Your task to perform on an android device: toggle show notifications on the lock screen Image 0: 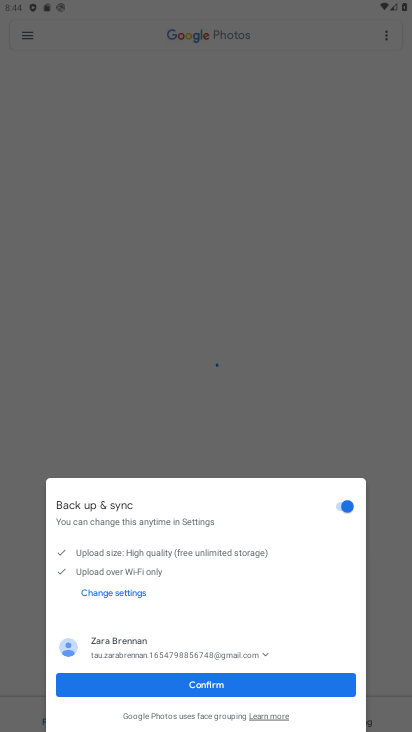
Step 0: press home button
Your task to perform on an android device: toggle show notifications on the lock screen Image 1: 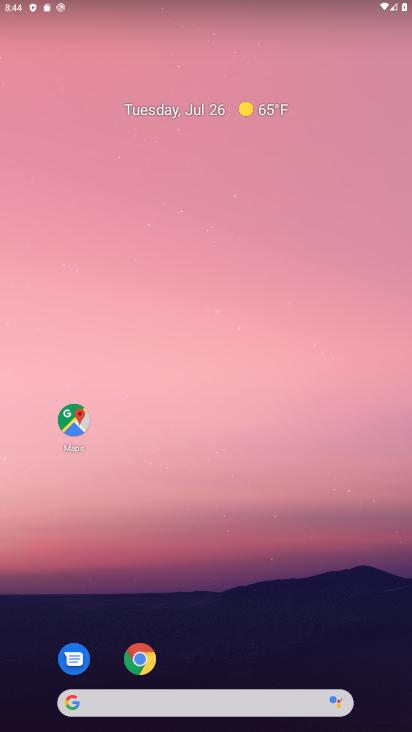
Step 1: drag from (224, 607) to (226, 160)
Your task to perform on an android device: toggle show notifications on the lock screen Image 2: 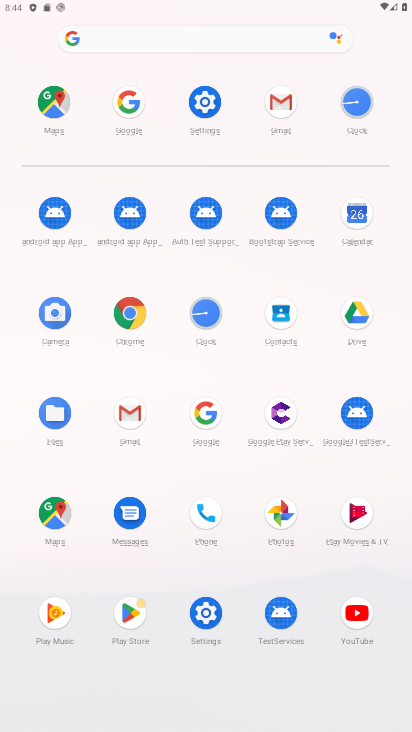
Step 2: click (200, 122)
Your task to perform on an android device: toggle show notifications on the lock screen Image 3: 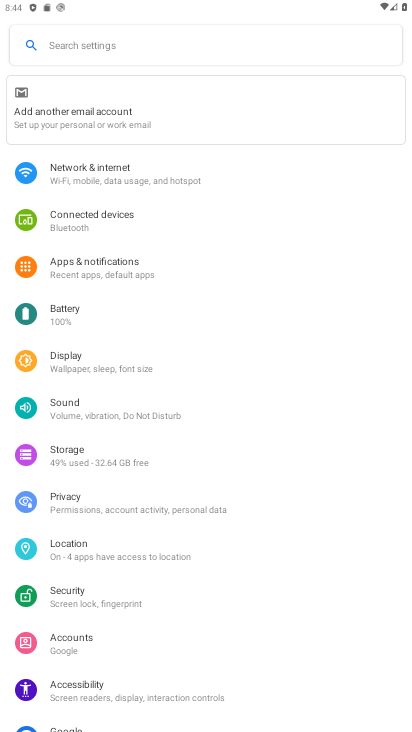
Step 3: click (85, 273)
Your task to perform on an android device: toggle show notifications on the lock screen Image 4: 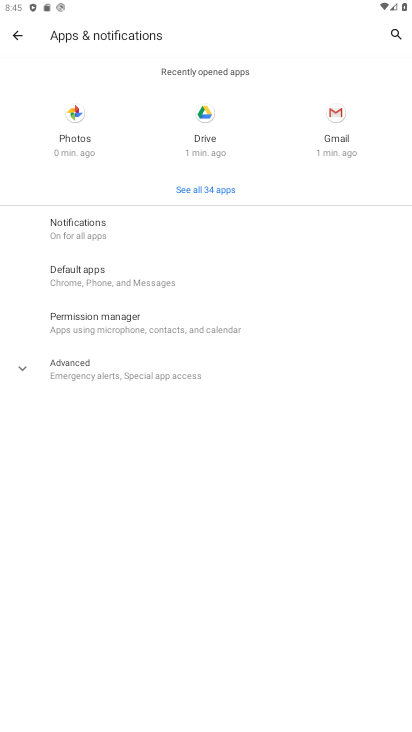
Step 4: click (55, 227)
Your task to perform on an android device: toggle show notifications on the lock screen Image 5: 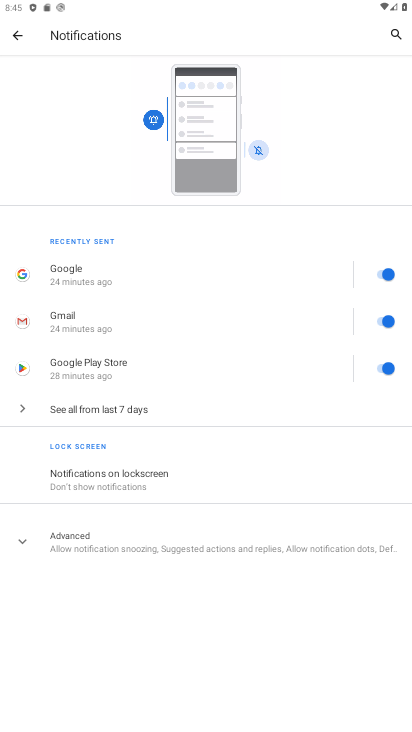
Step 5: click (113, 483)
Your task to perform on an android device: toggle show notifications on the lock screen Image 6: 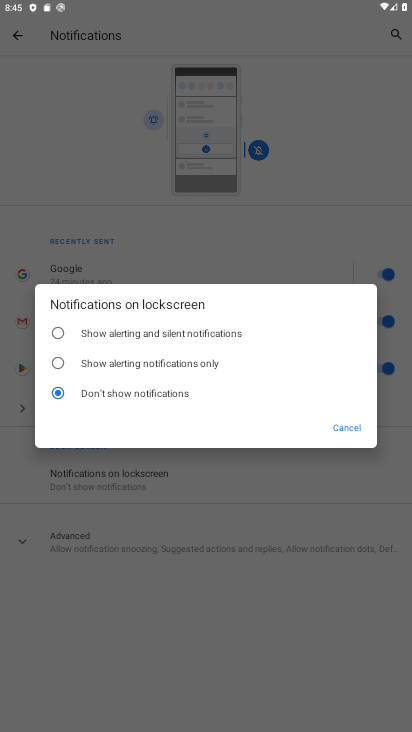
Step 6: click (64, 330)
Your task to perform on an android device: toggle show notifications on the lock screen Image 7: 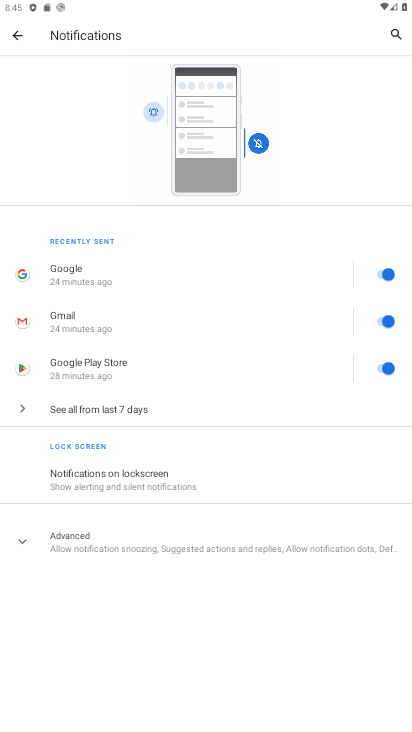
Step 7: task complete